Your task to perform on an android device: What's the weather going to be tomorrow? Image 0: 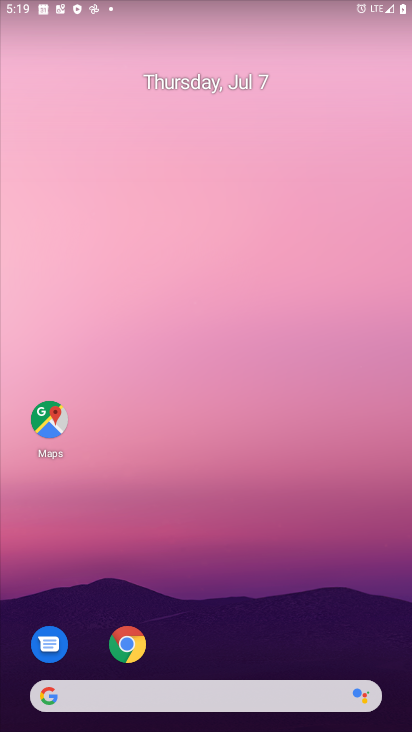
Step 0: drag from (257, 640) to (222, 152)
Your task to perform on an android device: What's the weather going to be tomorrow? Image 1: 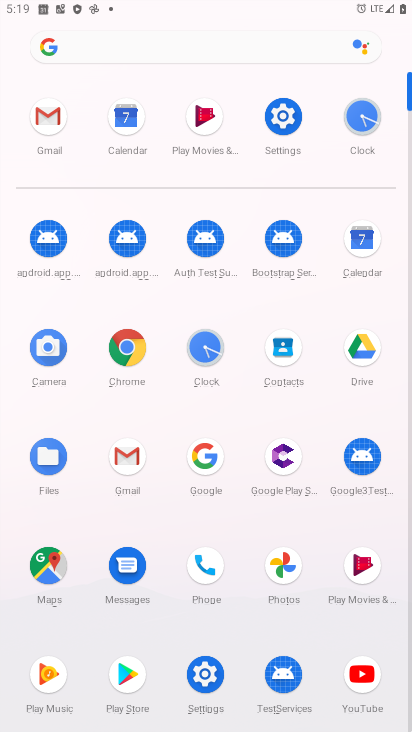
Step 1: click (203, 455)
Your task to perform on an android device: What's the weather going to be tomorrow? Image 2: 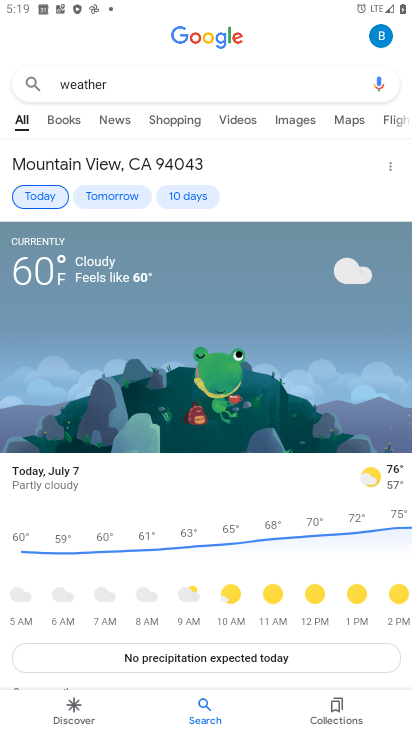
Step 2: click (265, 87)
Your task to perform on an android device: What's the weather going to be tomorrow? Image 3: 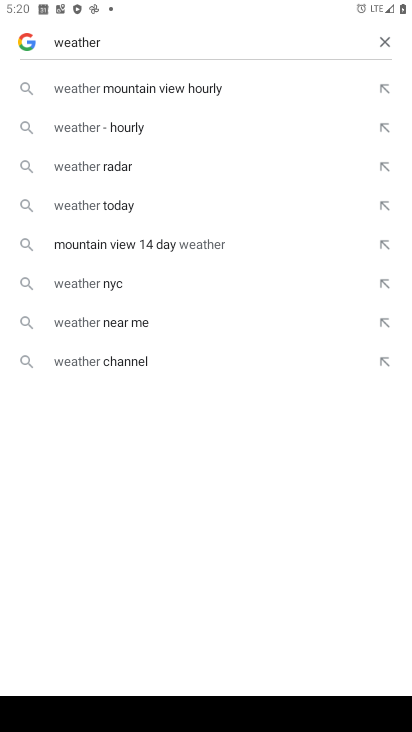
Step 3: click (381, 42)
Your task to perform on an android device: What's the weather going to be tomorrow? Image 4: 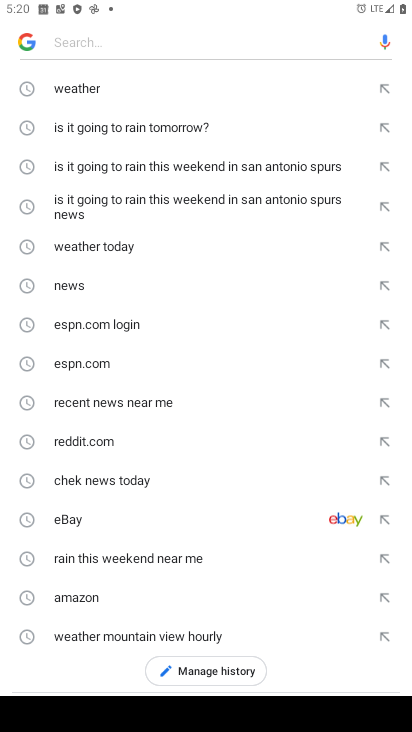
Step 4: type "What's the weather going to be tomorrow?"
Your task to perform on an android device: What's the weather going to be tomorrow? Image 5: 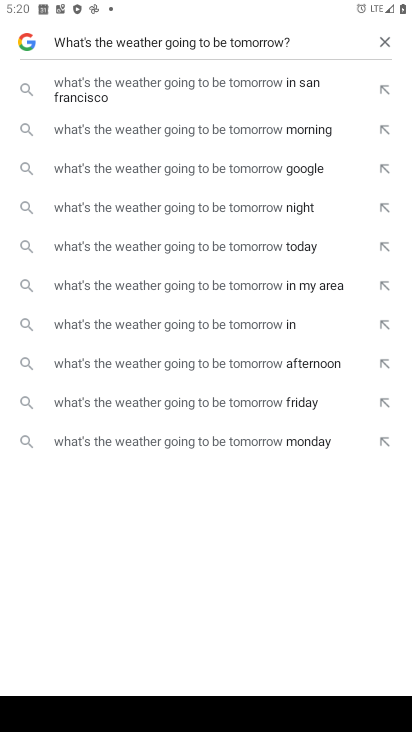
Step 5: click (104, 88)
Your task to perform on an android device: What's the weather going to be tomorrow? Image 6: 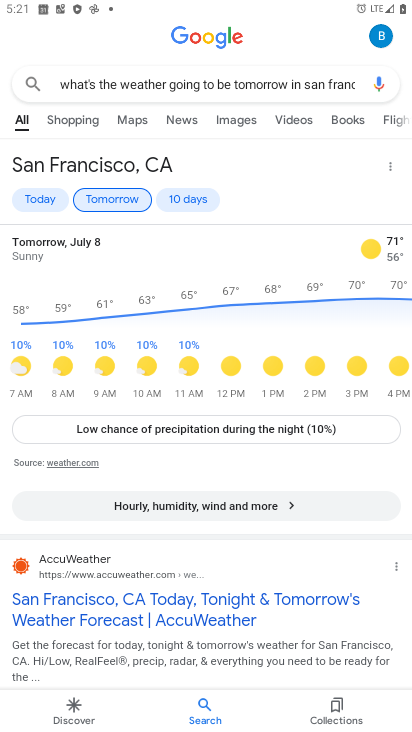
Step 6: task complete